Your task to perform on an android device: Open Google Maps Image 0: 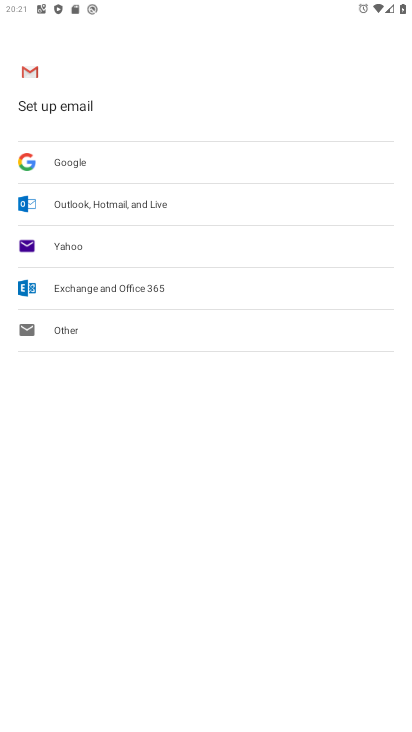
Step 0: press home button
Your task to perform on an android device: Open Google Maps Image 1: 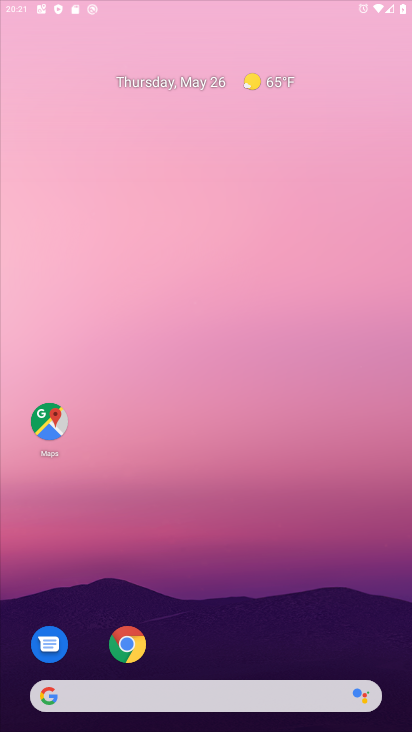
Step 1: drag from (192, 445) to (157, 23)
Your task to perform on an android device: Open Google Maps Image 2: 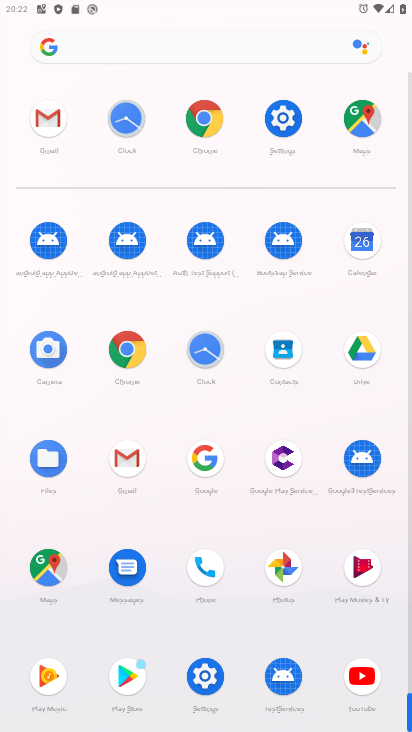
Step 2: click (34, 564)
Your task to perform on an android device: Open Google Maps Image 3: 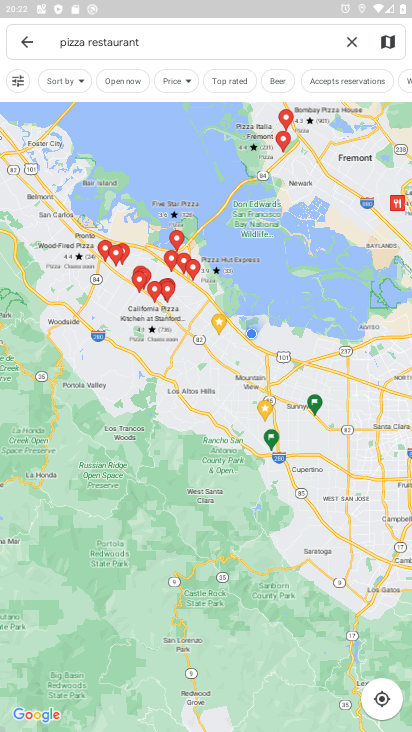
Step 3: drag from (283, 622) to (323, 248)
Your task to perform on an android device: Open Google Maps Image 4: 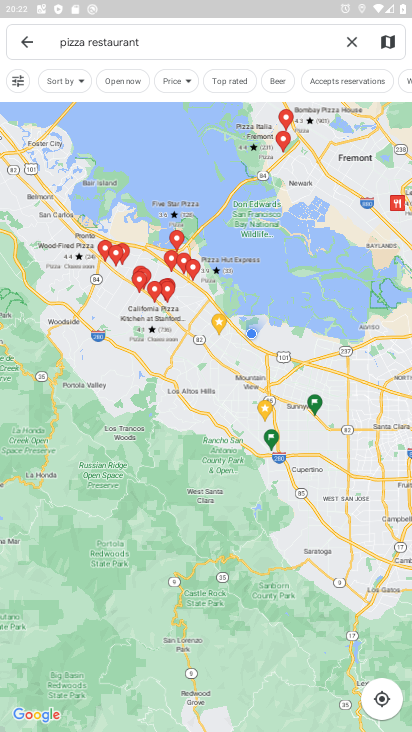
Step 4: click (25, 36)
Your task to perform on an android device: Open Google Maps Image 5: 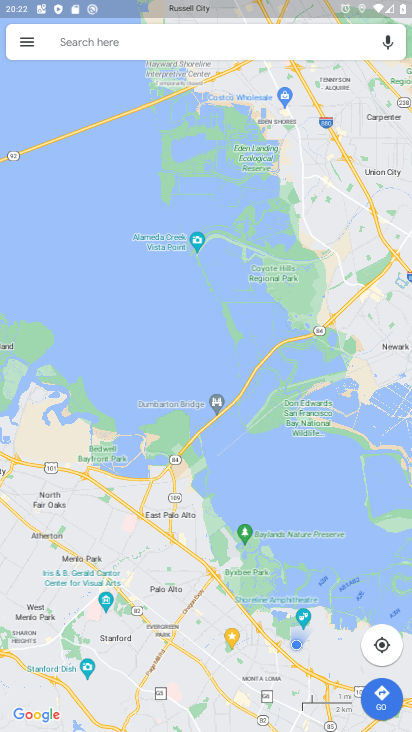
Step 5: task complete